Your task to perform on an android device: Open Google Chrome Image 0: 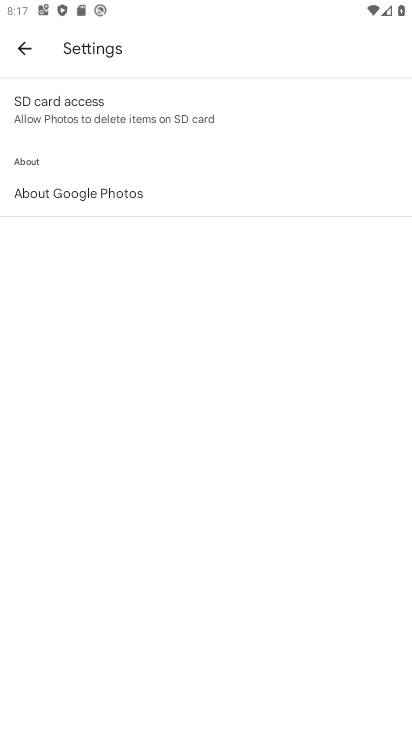
Step 0: press home button
Your task to perform on an android device: Open Google Chrome Image 1: 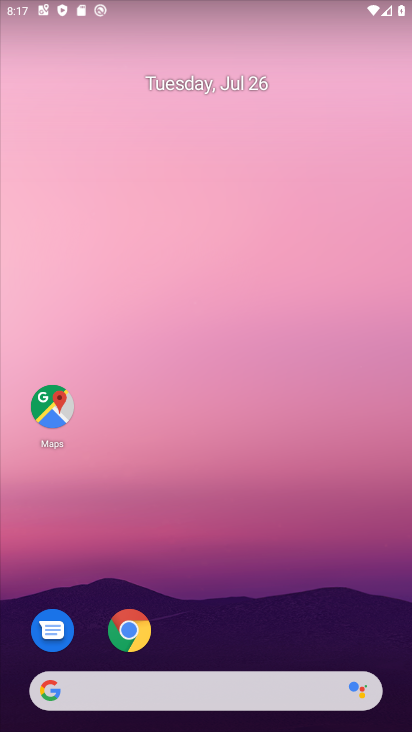
Step 1: drag from (268, 640) to (275, 96)
Your task to perform on an android device: Open Google Chrome Image 2: 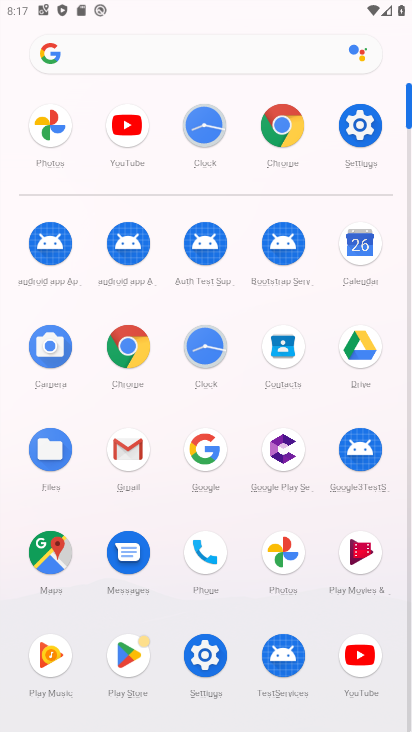
Step 2: click (278, 140)
Your task to perform on an android device: Open Google Chrome Image 3: 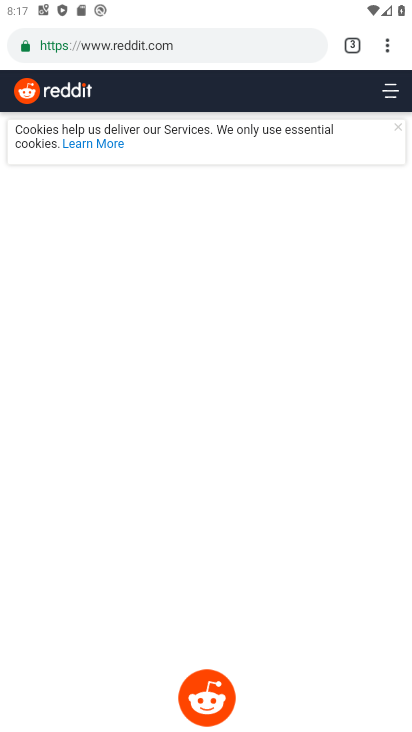
Step 3: task complete